Your task to perform on an android device: turn off airplane mode Image 0: 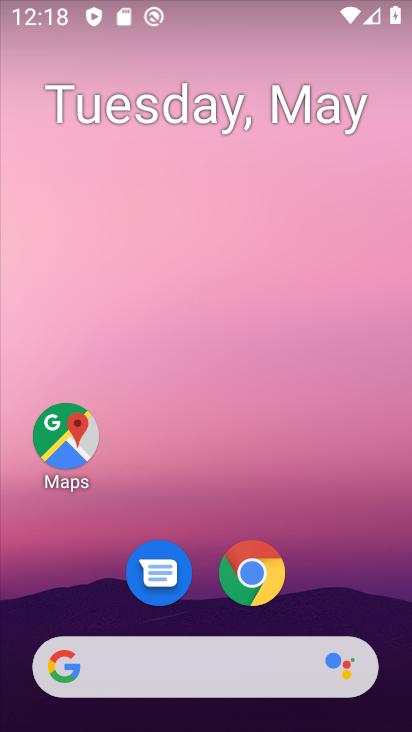
Step 0: drag from (361, 520) to (398, 169)
Your task to perform on an android device: turn off airplane mode Image 1: 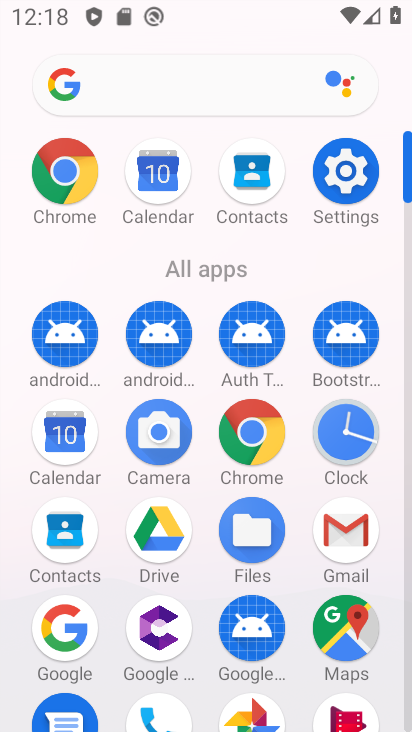
Step 1: click (366, 155)
Your task to perform on an android device: turn off airplane mode Image 2: 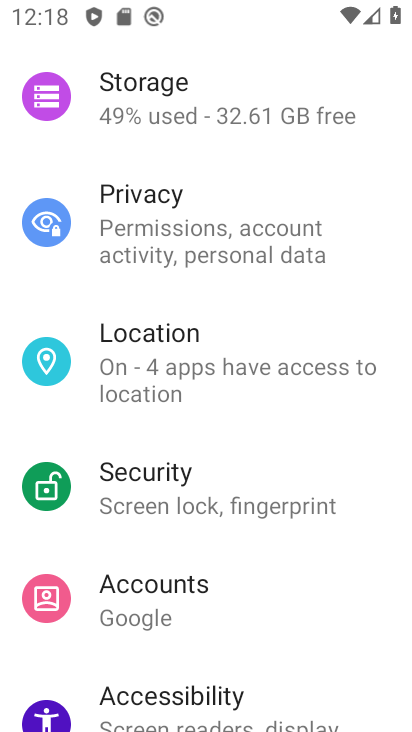
Step 2: drag from (366, 155) to (337, 634)
Your task to perform on an android device: turn off airplane mode Image 3: 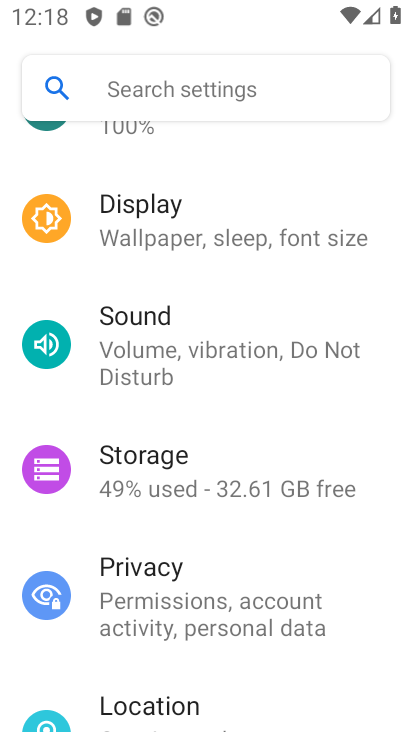
Step 3: drag from (291, 213) to (313, 598)
Your task to perform on an android device: turn off airplane mode Image 4: 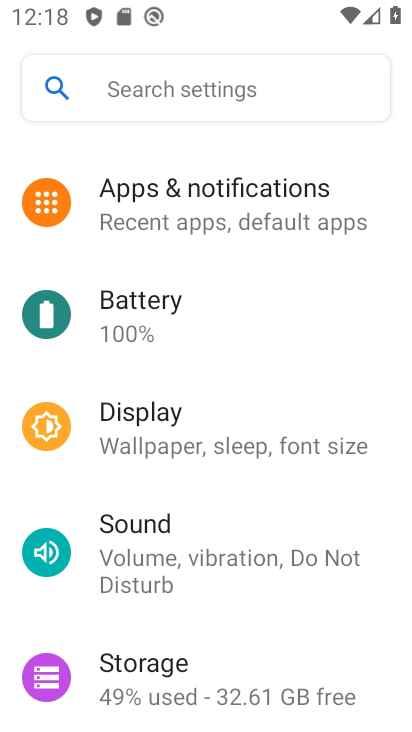
Step 4: drag from (297, 196) to (285, 606)
Your task to perform on an android device: turn off airplane mode Image 5: 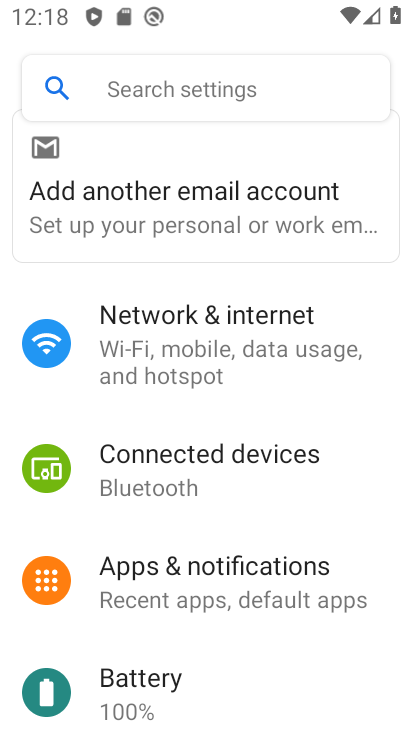
Step 5: drag from (276, 301) to (302, 547)
Your task to perform on an android device: turn off airplane mode Image 6: 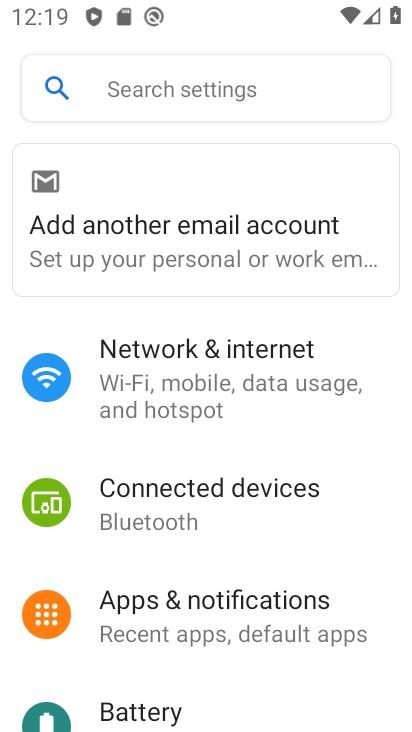
Step 6: click (216, 397)
Your task to perform on an android device: turn off airplane mode Image 7: 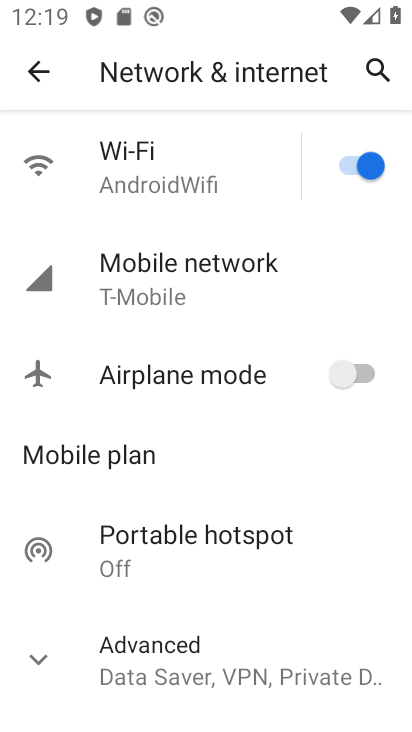
Step 7: click (365, 381)
Your task to perform on an android device: turn off airplane mode Image 8: 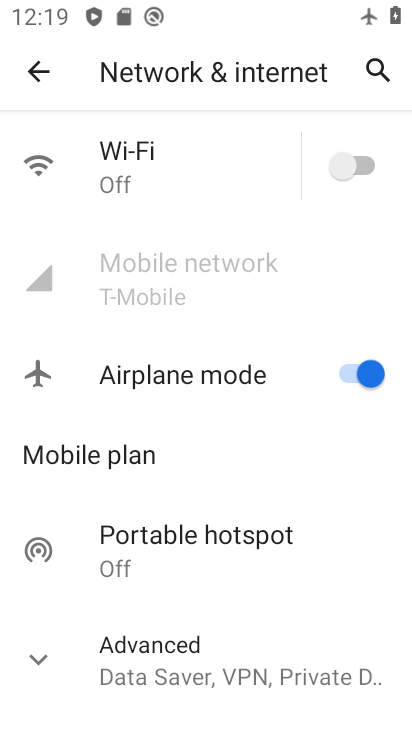
Step 8: click (365, 381)
Your task to perform on an android device: turn off airplane mode Image 9: 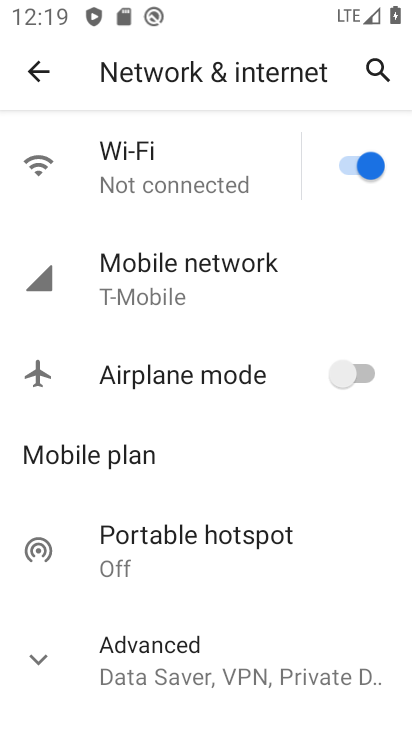
Step 9: task complete